Your task to perform on an android device: move a message to another label in the gmail app Image 0: 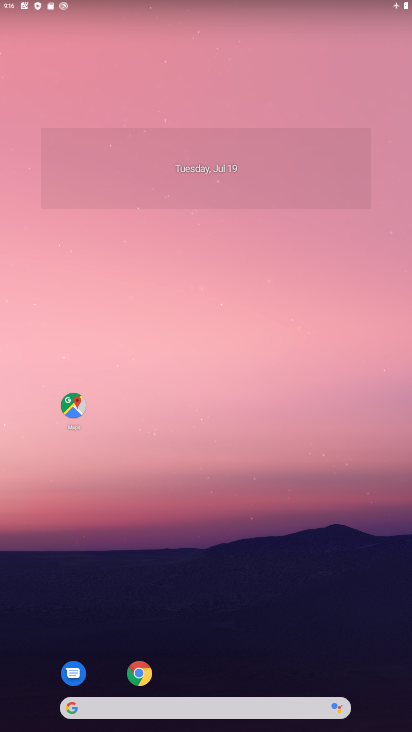
Step 0: drag from (219, 638) to (219, 50)
Your task to perform on an android device: move a message to another label in the gmail app Image 1: 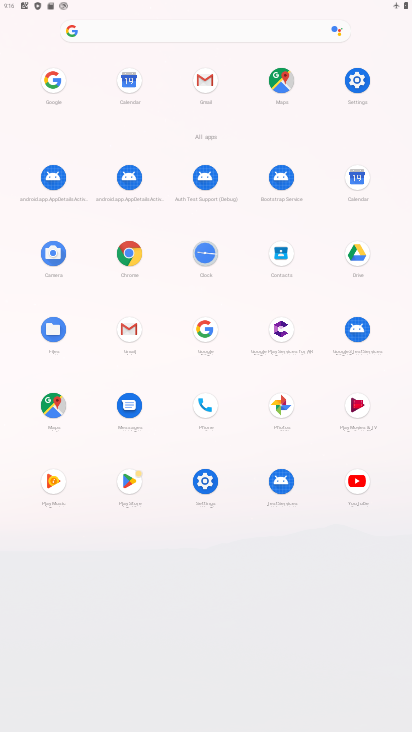
Step 1: click (200, 90)
Your task to perform on an android device: move a message to another label in the gmail app Image 2: 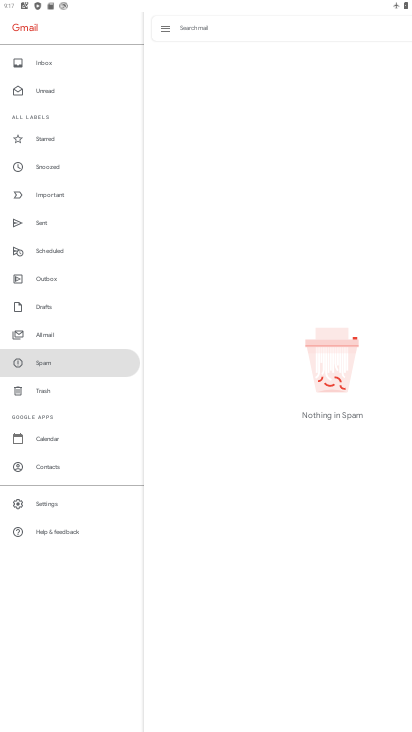
Step 2: click (61, 65)
Your task to perform on an android device: move a message to another label in the gmail app Image 3: 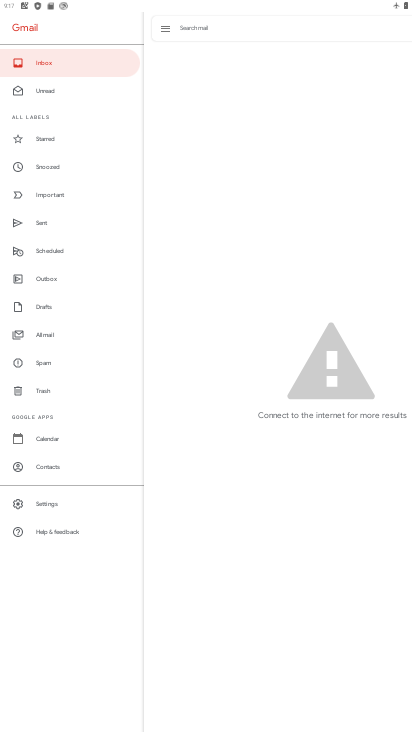
Step 3: task complete